Your task to perform on an android device: open app "AliExpress" (install if not already installed) Image 0: 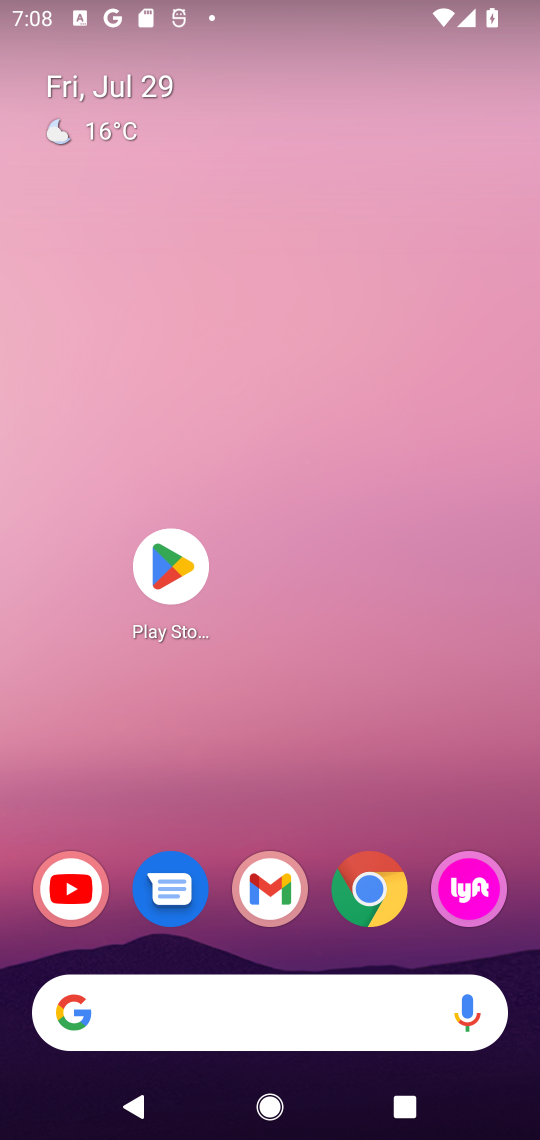
Step 0: click (169, 563)
Your task to perform on an android device: open app "AliExpress" (install if not already installed) Image 1: 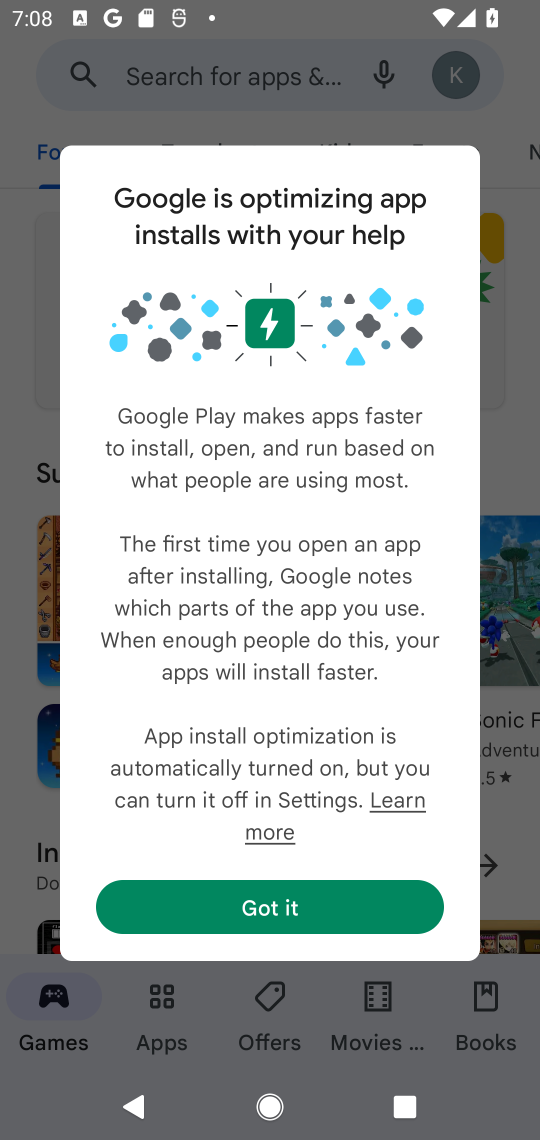
Step 1: click (337, 906)
Your task to perform on an android device: open app "AliExpress" (install if not already installed) Image 2: 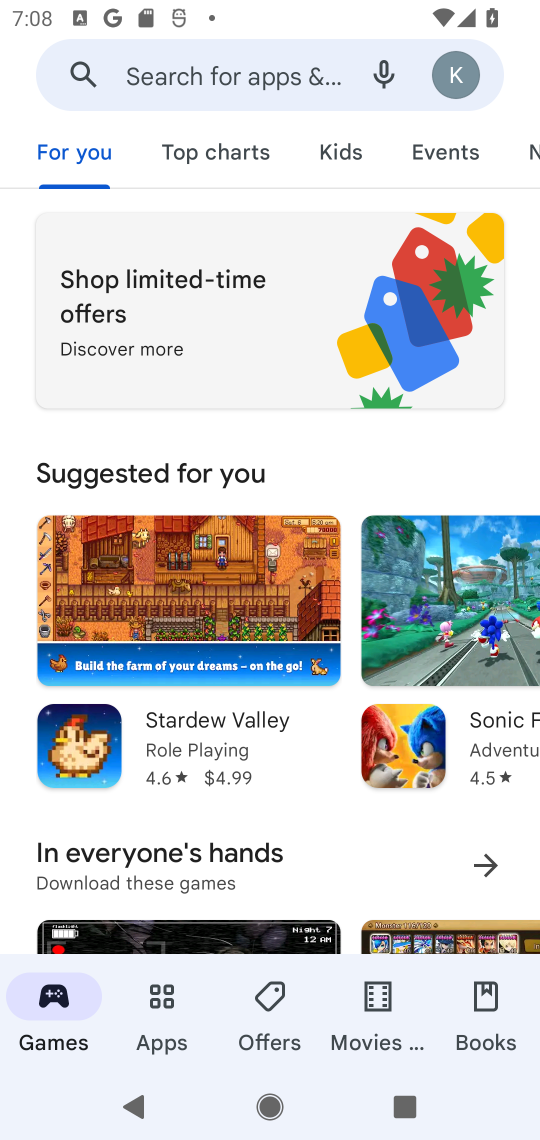
Step 2: click (285, 64)
Your task to perform on an android device: open app "AliExpress" (install if not already installed) Image 3: 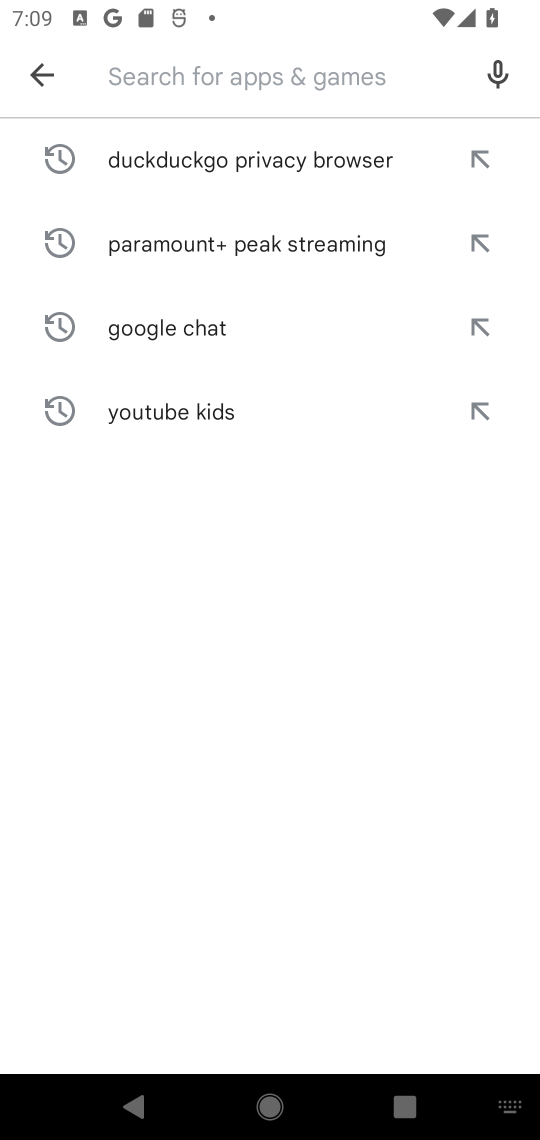
Step 3: type "AliExpress"
Your task to perform on an android device: open app "AliExpress" (install if not already installed) Image 4: 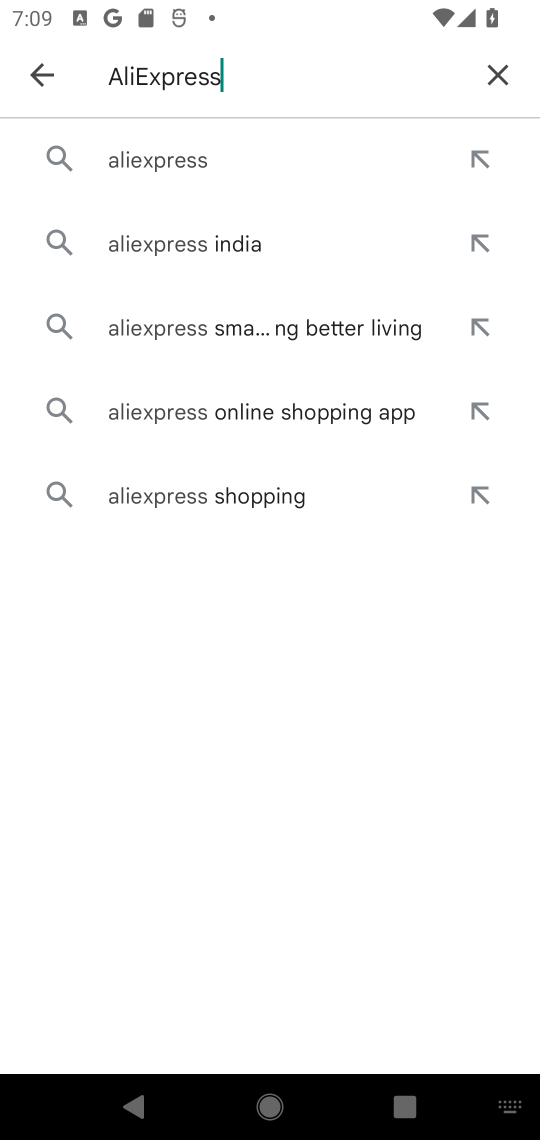
Step 4: click (145, 161)
Your task to perform on an android device: open app "AliExpress" (install if not already installed) Image 5: 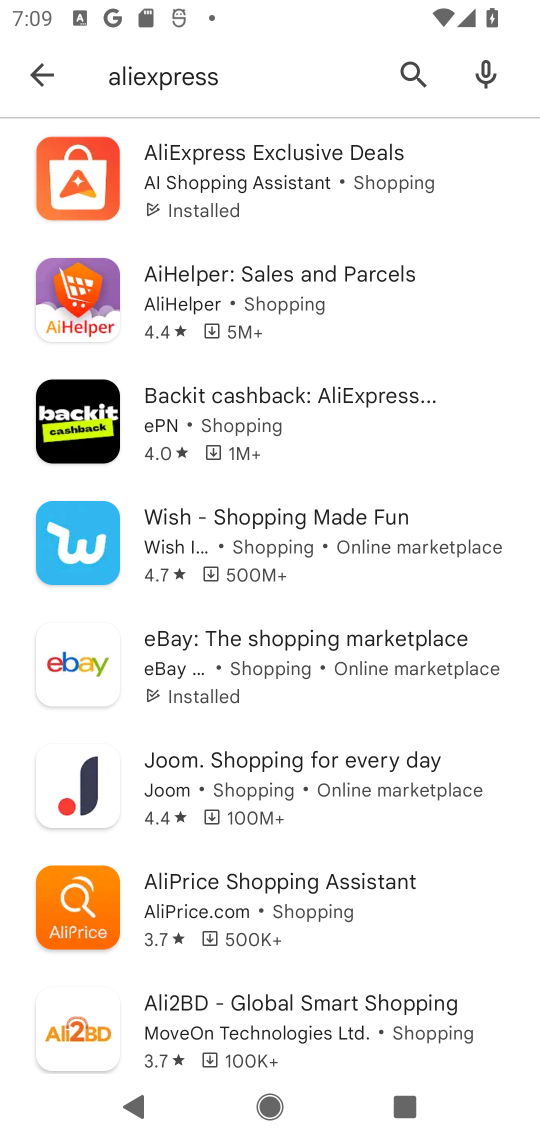
Step 5: click (245, 183)
Your task to perform on an android device: open app "AliExpress" (install if not already installed) Image 6: 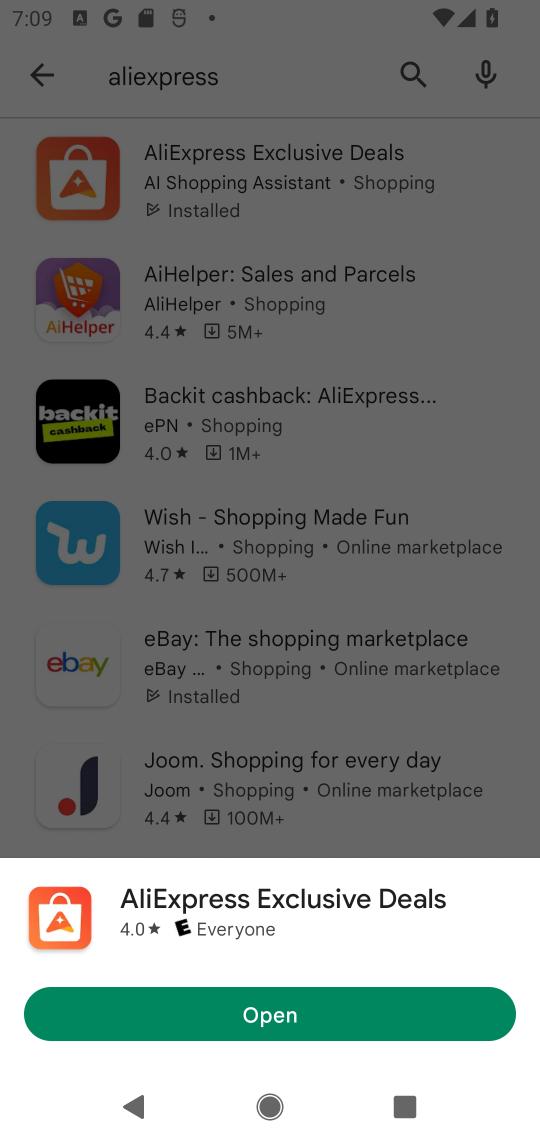
Step 6: click (293, 1025)
Your task to perform on an android device: open app "AliExpress" (install if not already installed) Image 7: 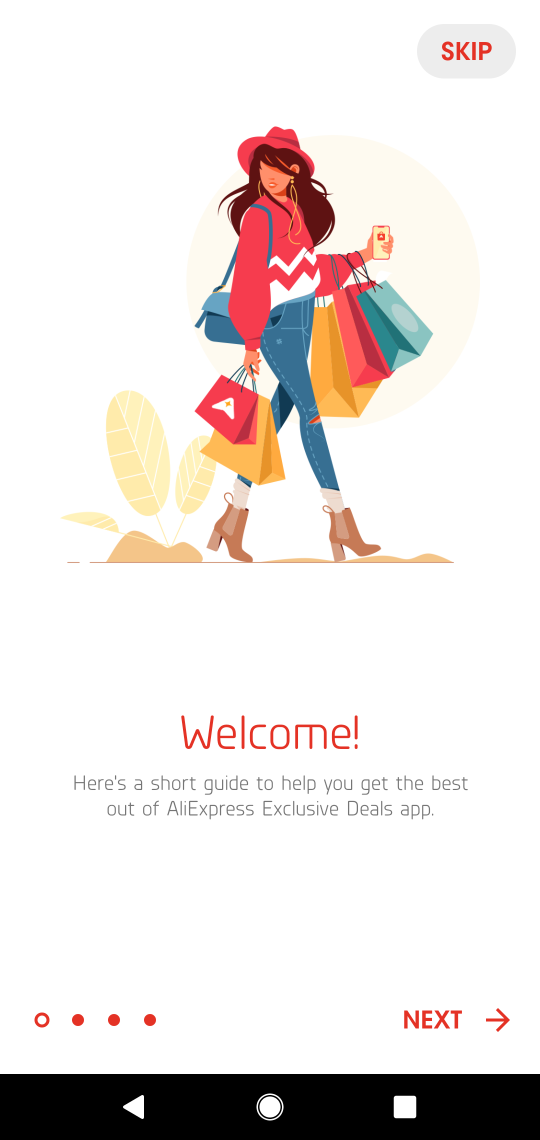
Step 7: task complete